Your task to perform on an android device: Open my contact list Image 0: 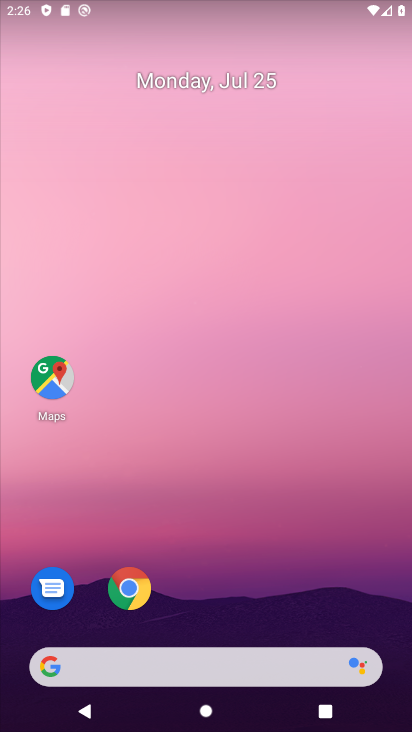
Step 0: drag from (290, 518) to (238, 13)
Your task to perform on an android device: Open my contact list Image 1: 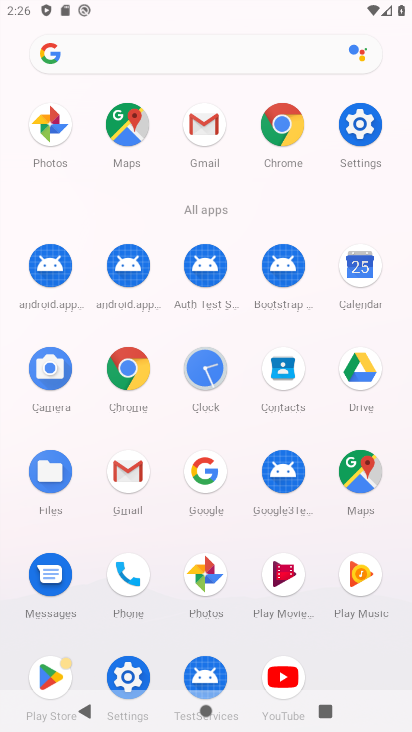
Step 1: click (291, 359)
Your task to perform on an android device: Open my contact list Image 2: 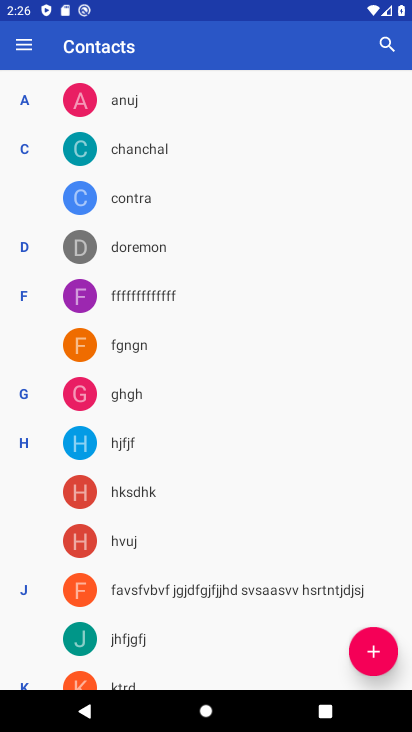
Step 2: task complete